Your task to perform on an android device: What's the weather today? Image 0: 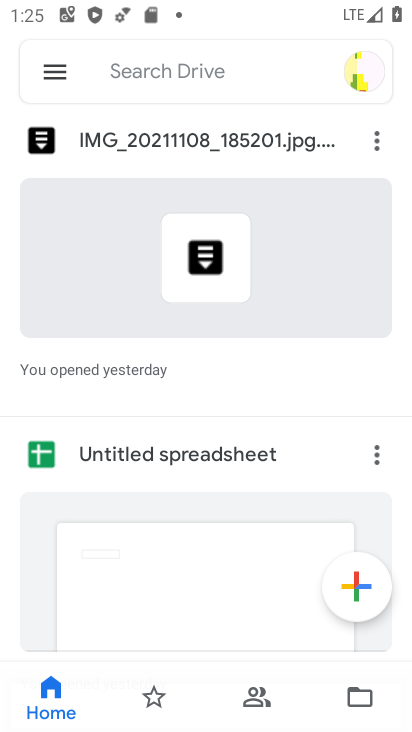
Step 0: press home button
Your task to perform on an android device: What's the weather today? Image 1: 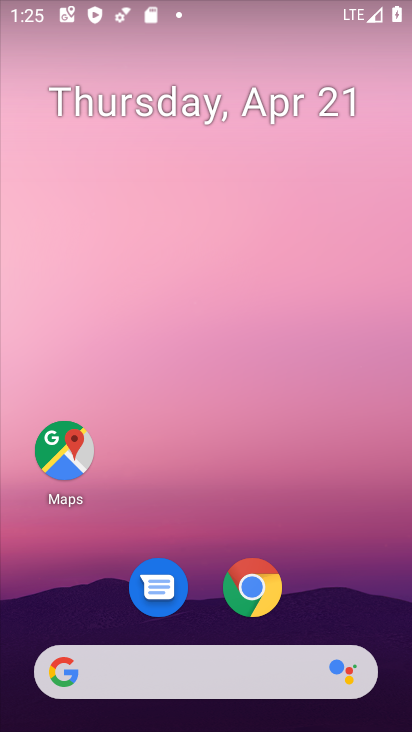
Step 1: drag from (12, 195) to (398, 177)
Your task to perform on an android device: What's the weather today? Image 2: 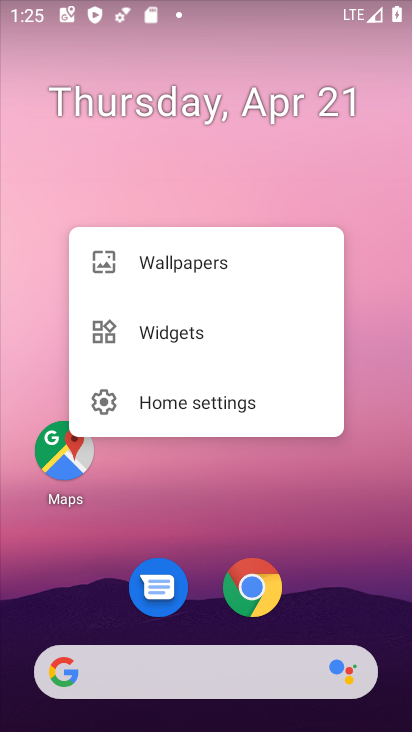
Step 2: drag from (1, 173) to (404, 215)
Your task to perform on an android device: What's the weather today? Image 3: 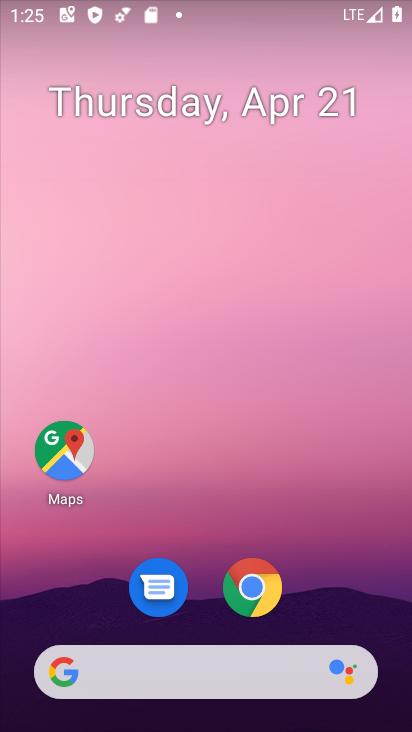
Step 3: drag from (9, 177) to (397, 214)
Your task to perform on an android device: What's the weather today? Image 4: 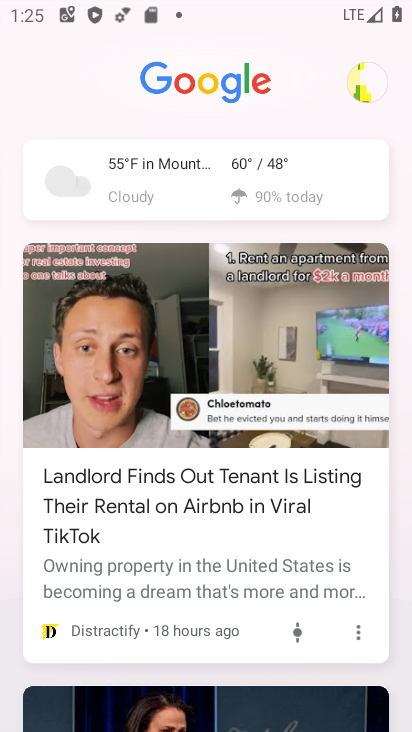
Step 4: click (256, 178)
Your task to perform on an android device: What's the weather today? Image 5: 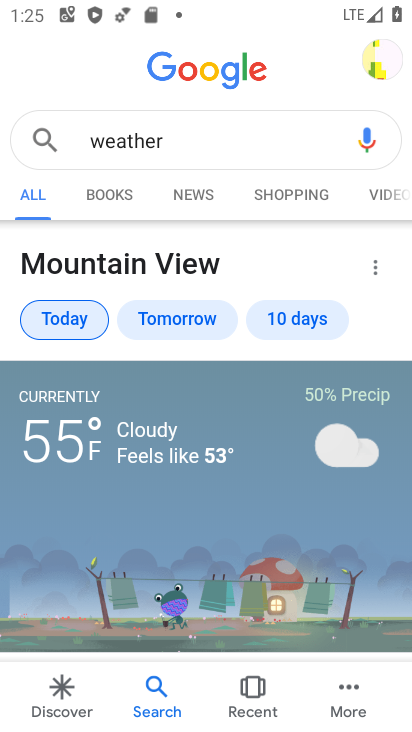
Step 5: task complete